Your task to perform on an android device: Do I have any events this weekend? Image 0: 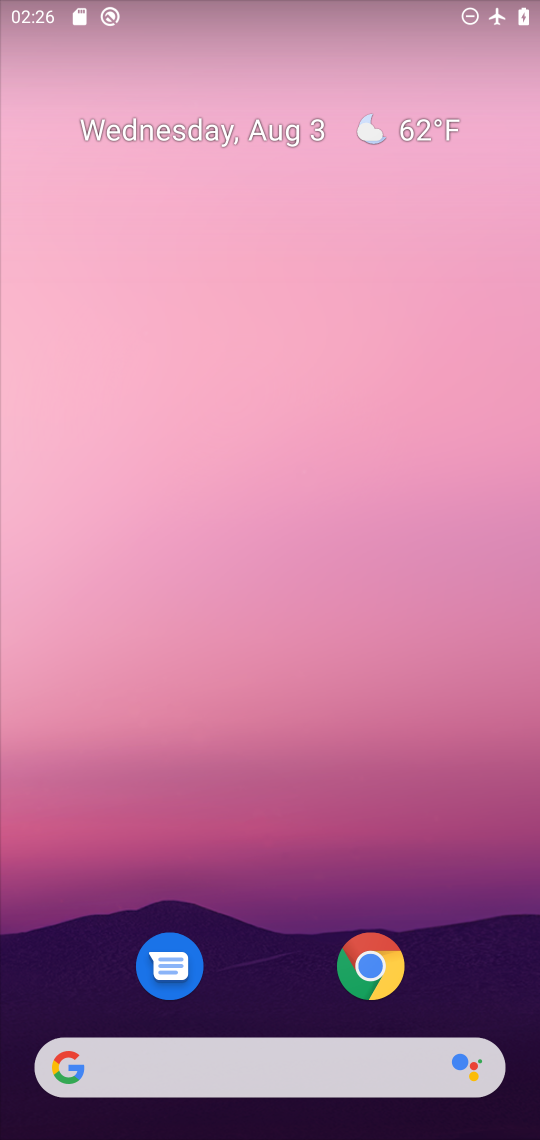
Step 0: drag from (269, 976) to (291, 337)
Your task to perform on an android device: Do I have any events this weekend? Image 1: 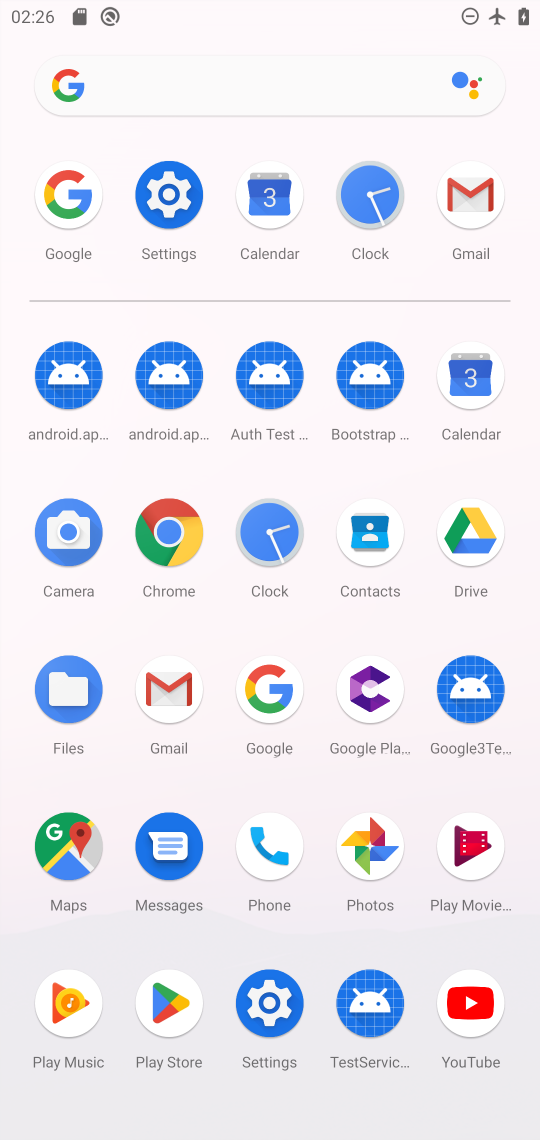
Step 1: click (449, 387)
Your task to perform on an android device: Do I have any events this weekend? Image 2: 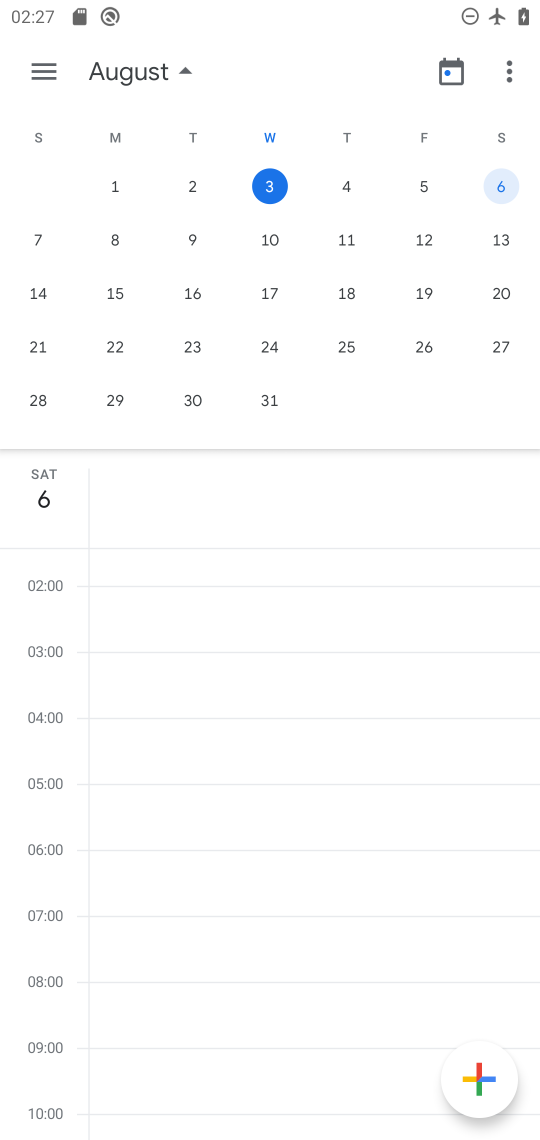
Step 2: click (485, 189)
Your task to perform on an android device: Do I have any events this weekend? Image 3: 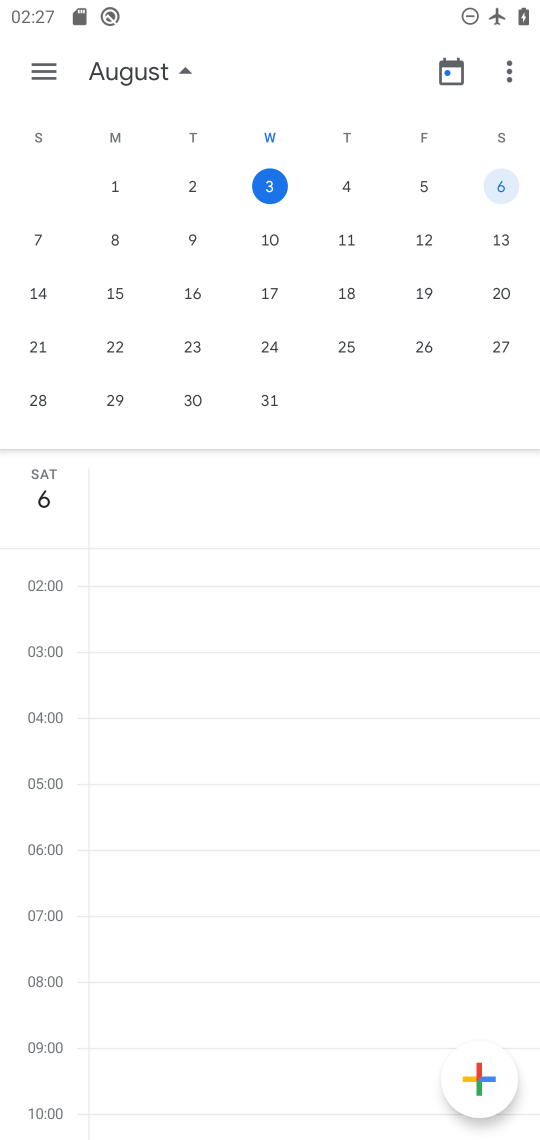
Step 3: task complete